Your task to perform on an android device: Go to Reddit.com Image 0: 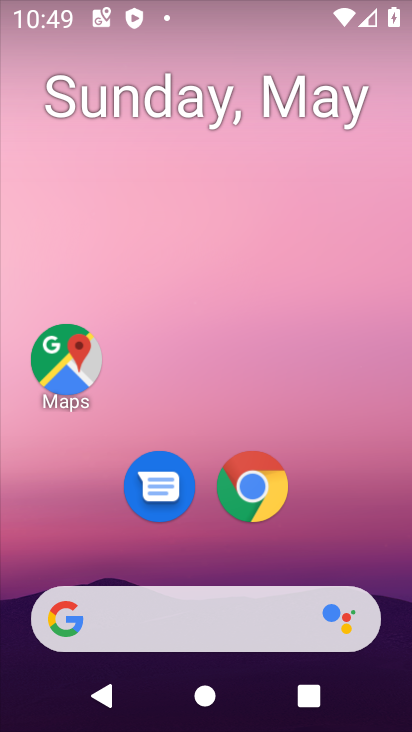
Step 0: drag from (281, 555) to (197, 222)
Your task to perform on an android device: Go to Reddit.com Image 1: 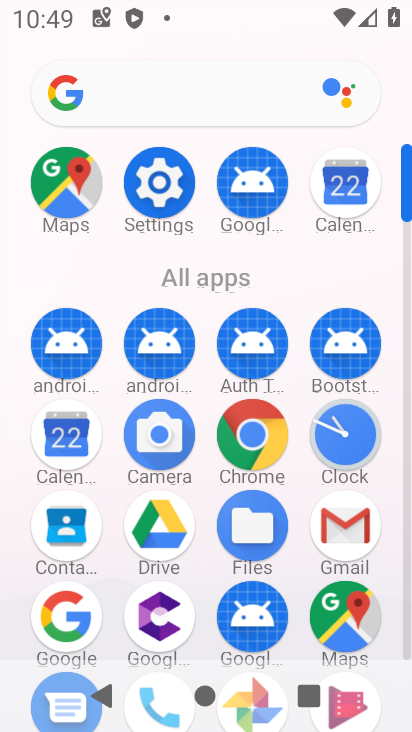
Step 1: click (245, 442)
Your task to perform on an android device: Go to Reddit.com Image 2: 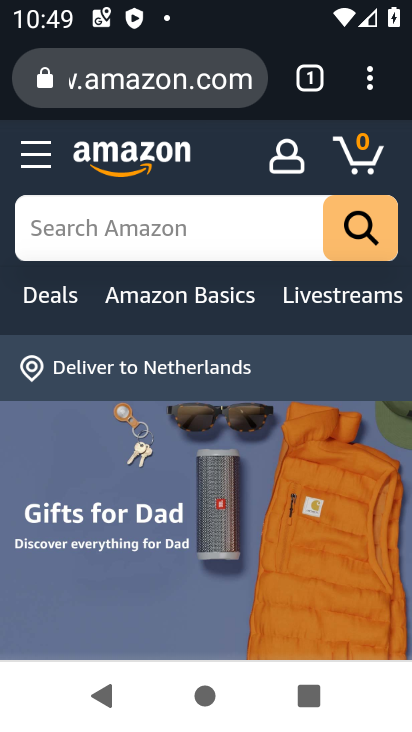
Step 2: click (130, 76)
Your task to perform on an android device: Go to Reddit.com Image 3: 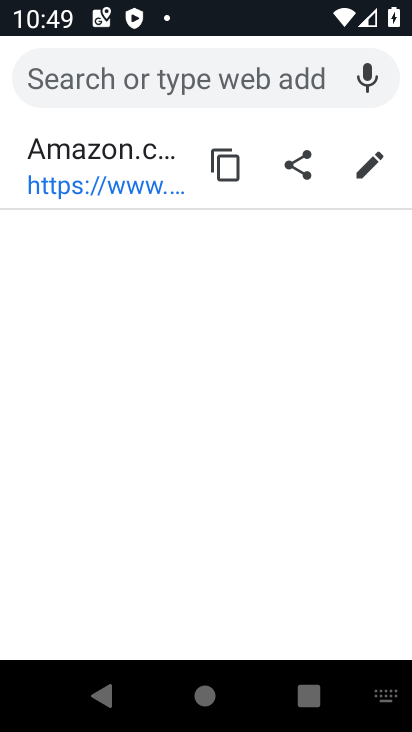
Step 3: click (120, 84)
Your task to perform on an android device: Go to Reddit.com Image 4: 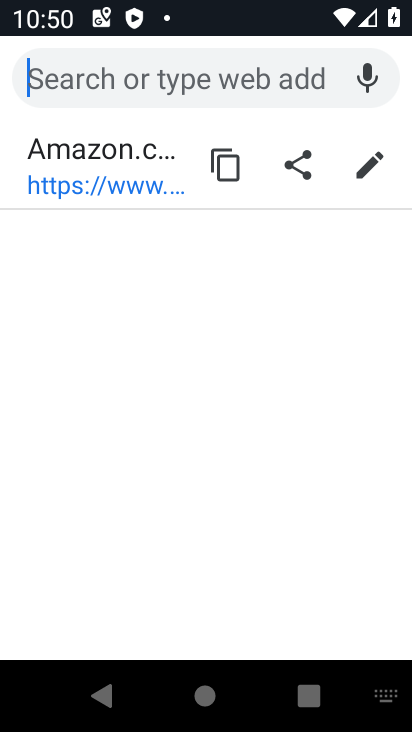
Step 4: type "www.reddit.com"
Your task to perform on an android device: Go to Reddit.com Image 5: 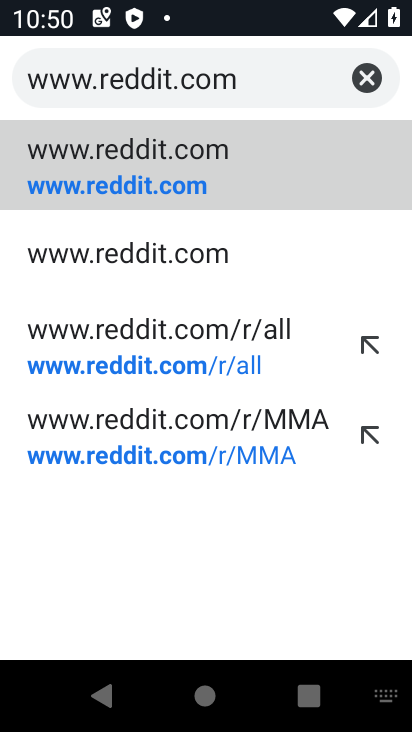
Step 5: click (96, 168)
Your task to perform on an android device: Go to Reddit.com Image 6: 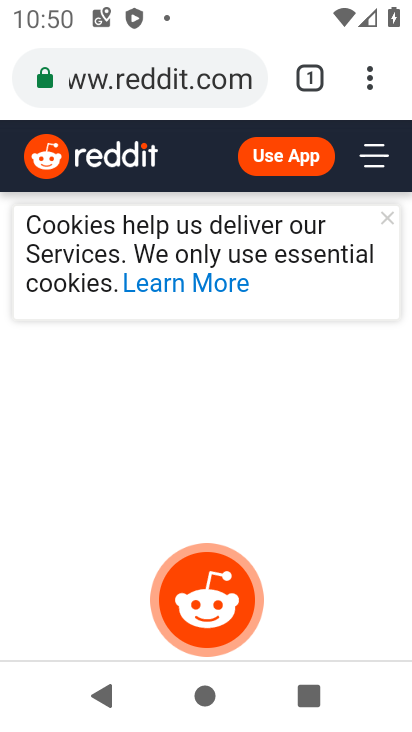
Step 6: task complete